Your task to perform on an android device: toggle translation in the chrome app Image 0: 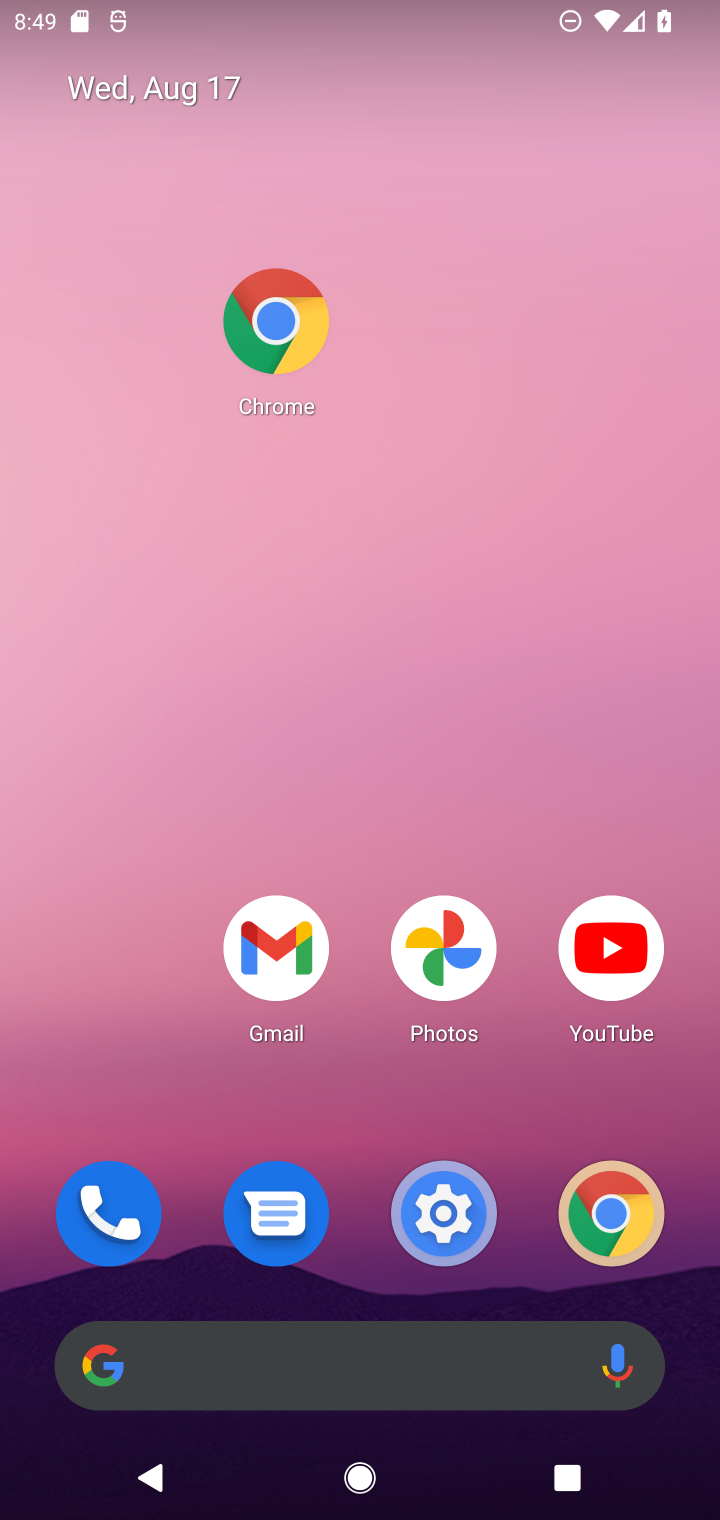
Step 0: click (629, 1203)
Your task to perform on an android device: toggle translation in the chrome app Image 1: 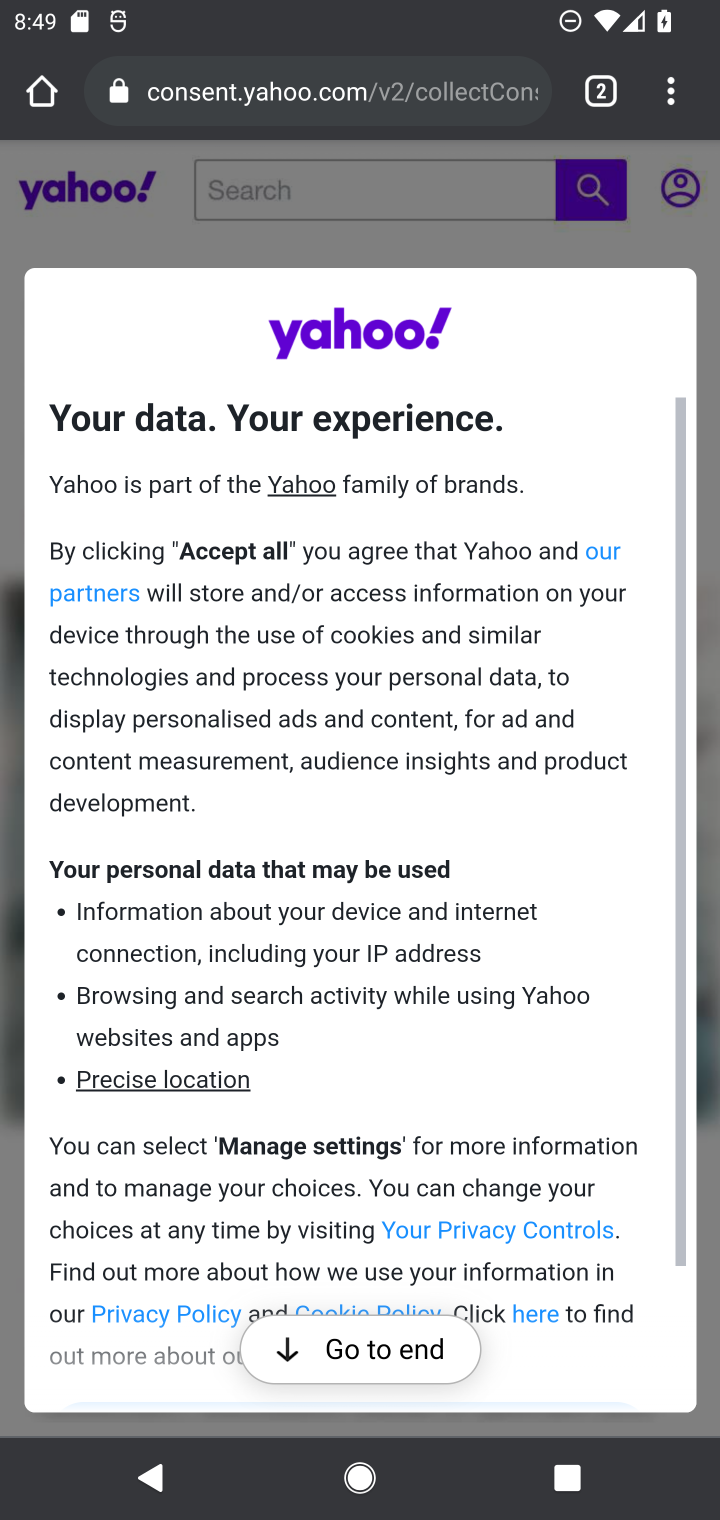
Step 1: click (662, 115)
Your task to perform on an android device: toggle translation in the chrome app Image 2: 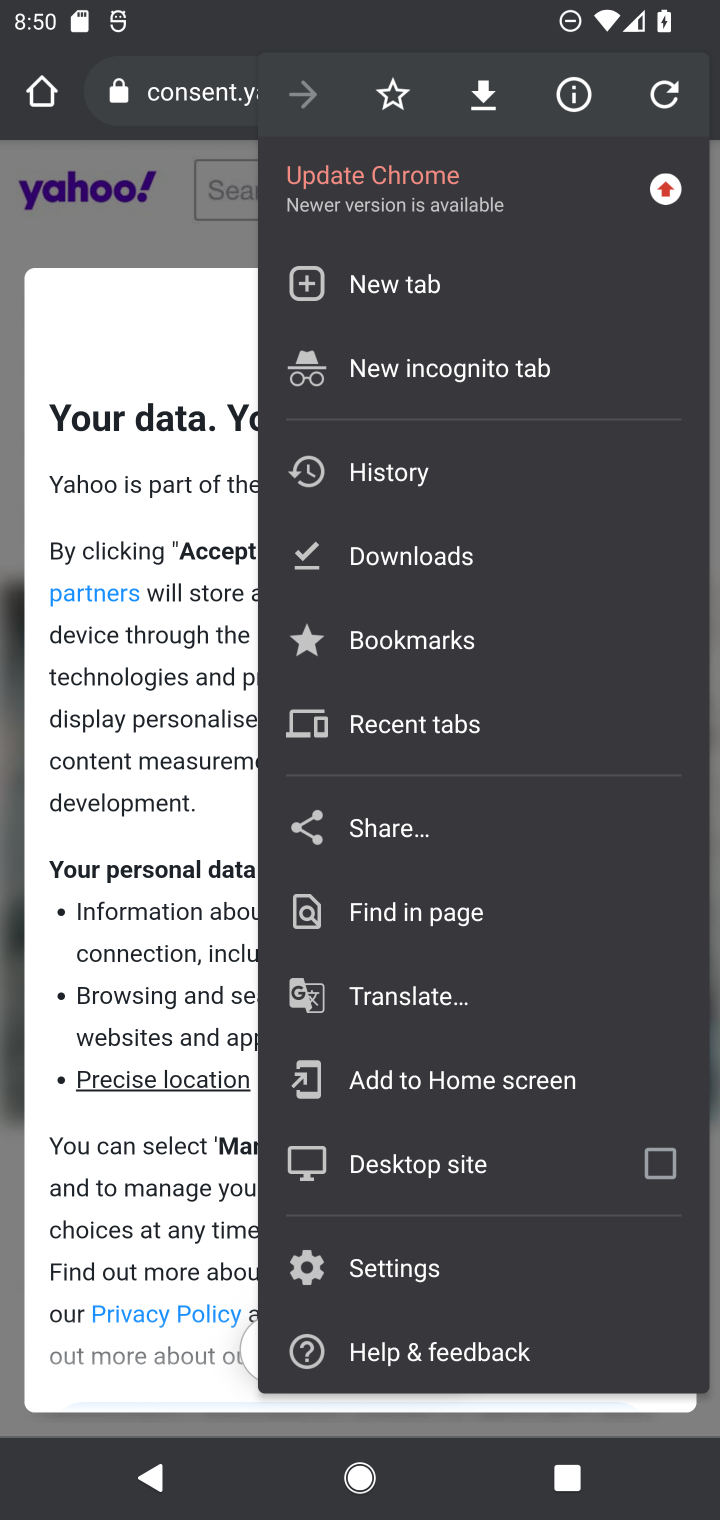
Step 2: click (452, 1245)
Your task to perform on an android device: toggle translation in the chrome app Image 3: 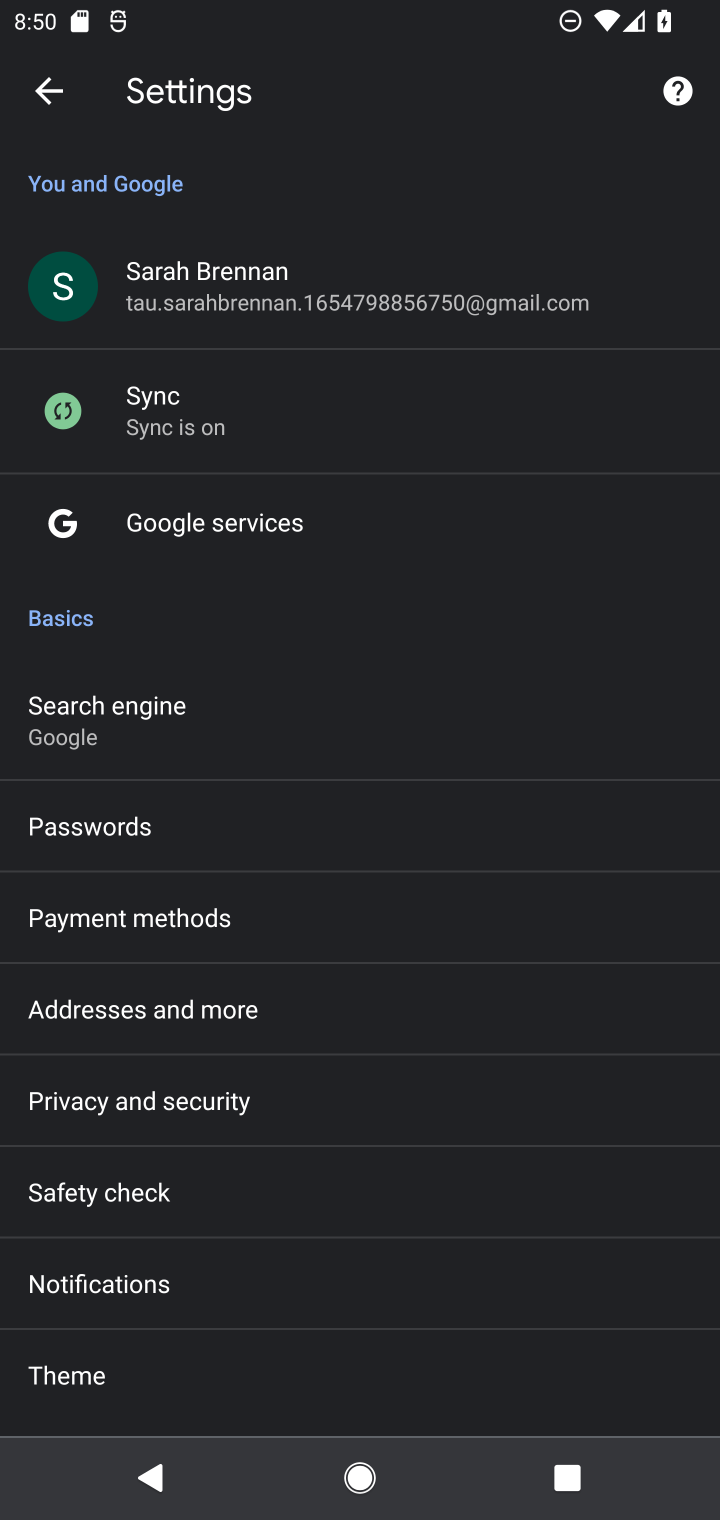
Step 3: drag from (423, 1369) to (302, 538)
Your task to perform on an android device: toggle translation in the chrome app Image 4: 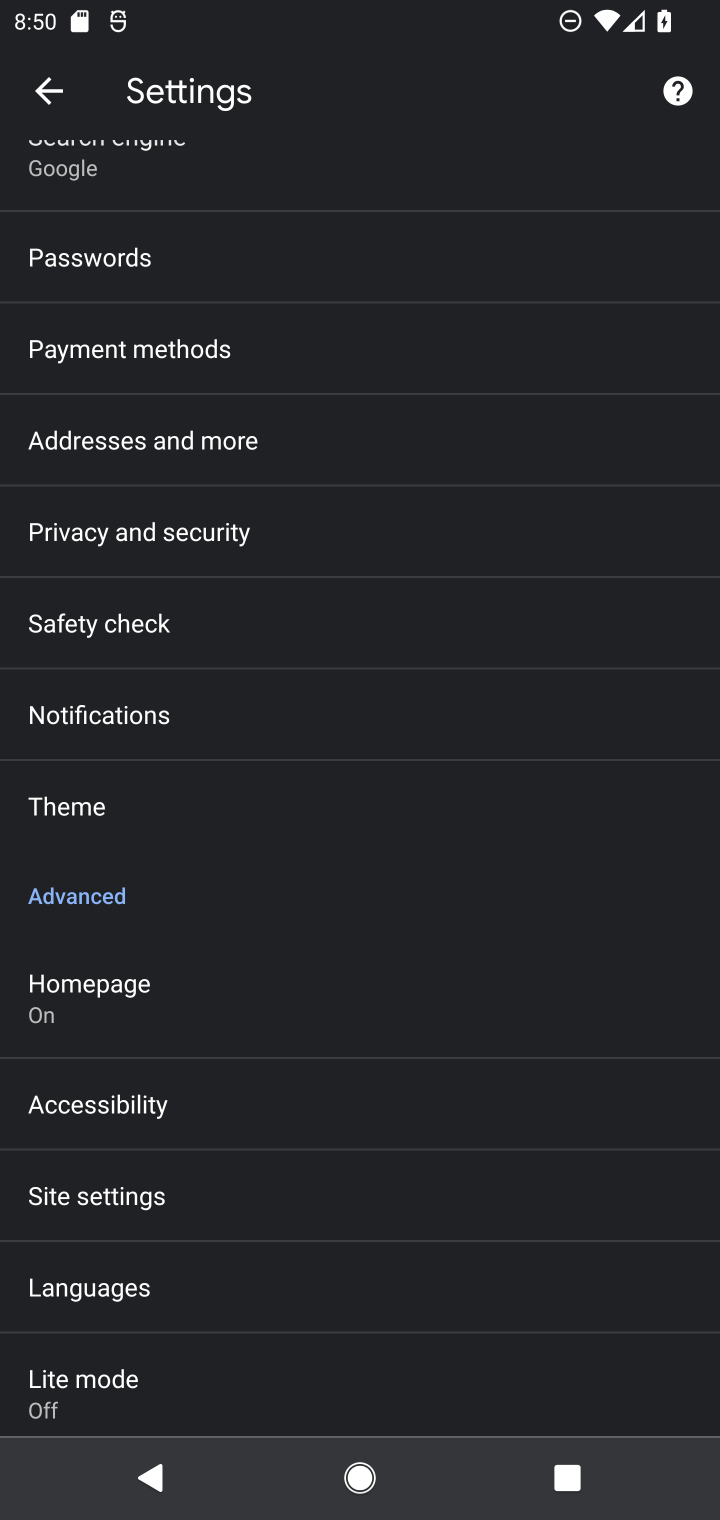
Step 4: click (219, 1315)
Your task to perform on an android device: toggle translation in the chrome app Image 5: 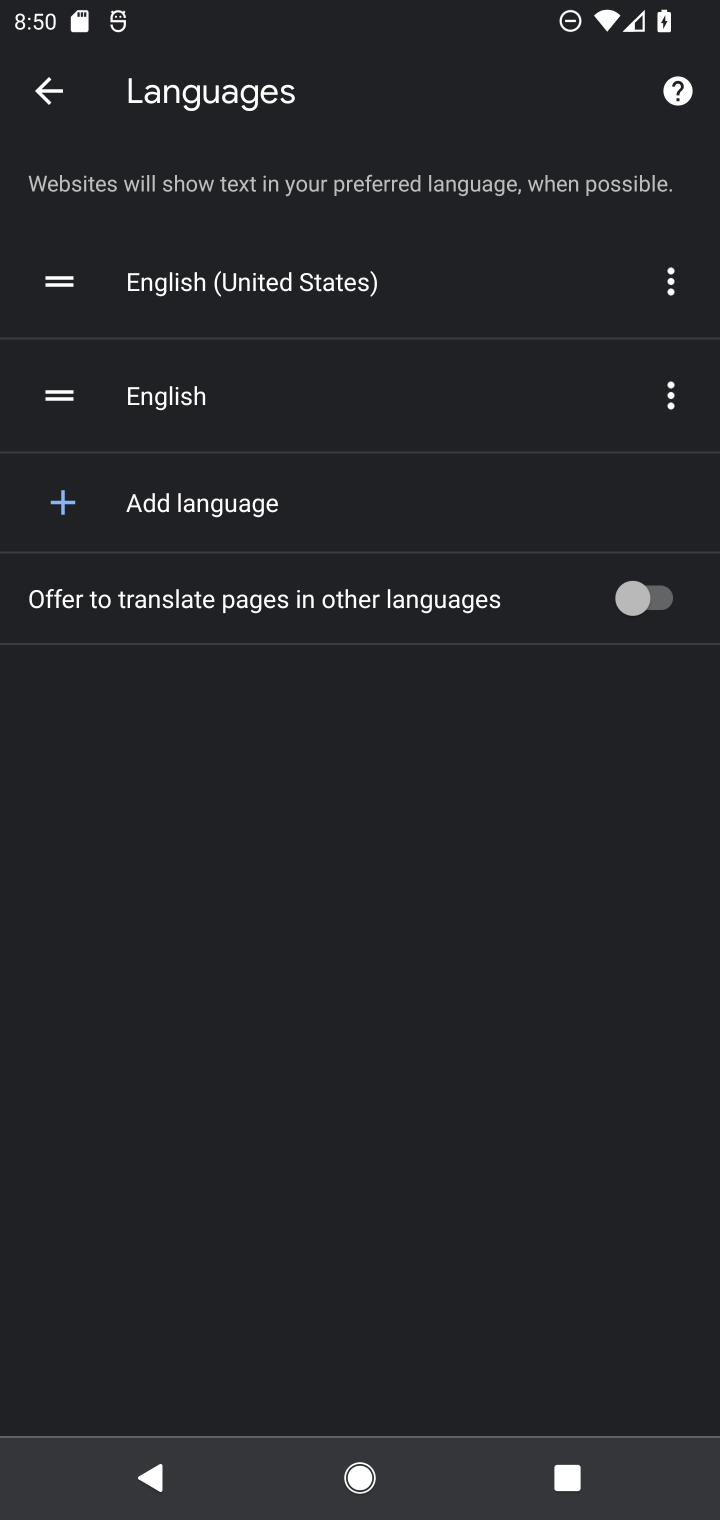
Step 5: click (584, 543)
Your task to perform on an android device: toggle translation in the chrome app Image 6: 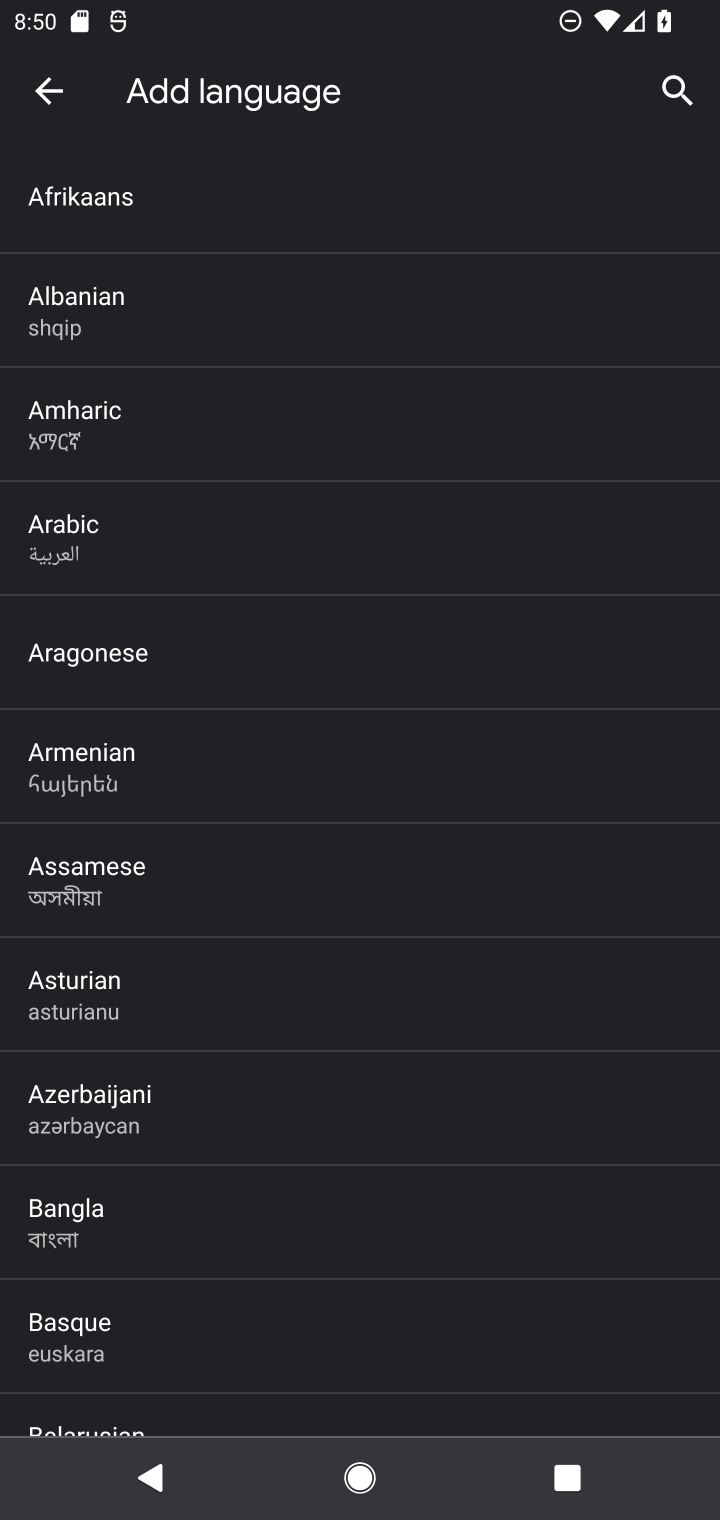
Step 6: click (62, 121)
Your task to perform on an android device: toggle translation in the chrome app Image 7: 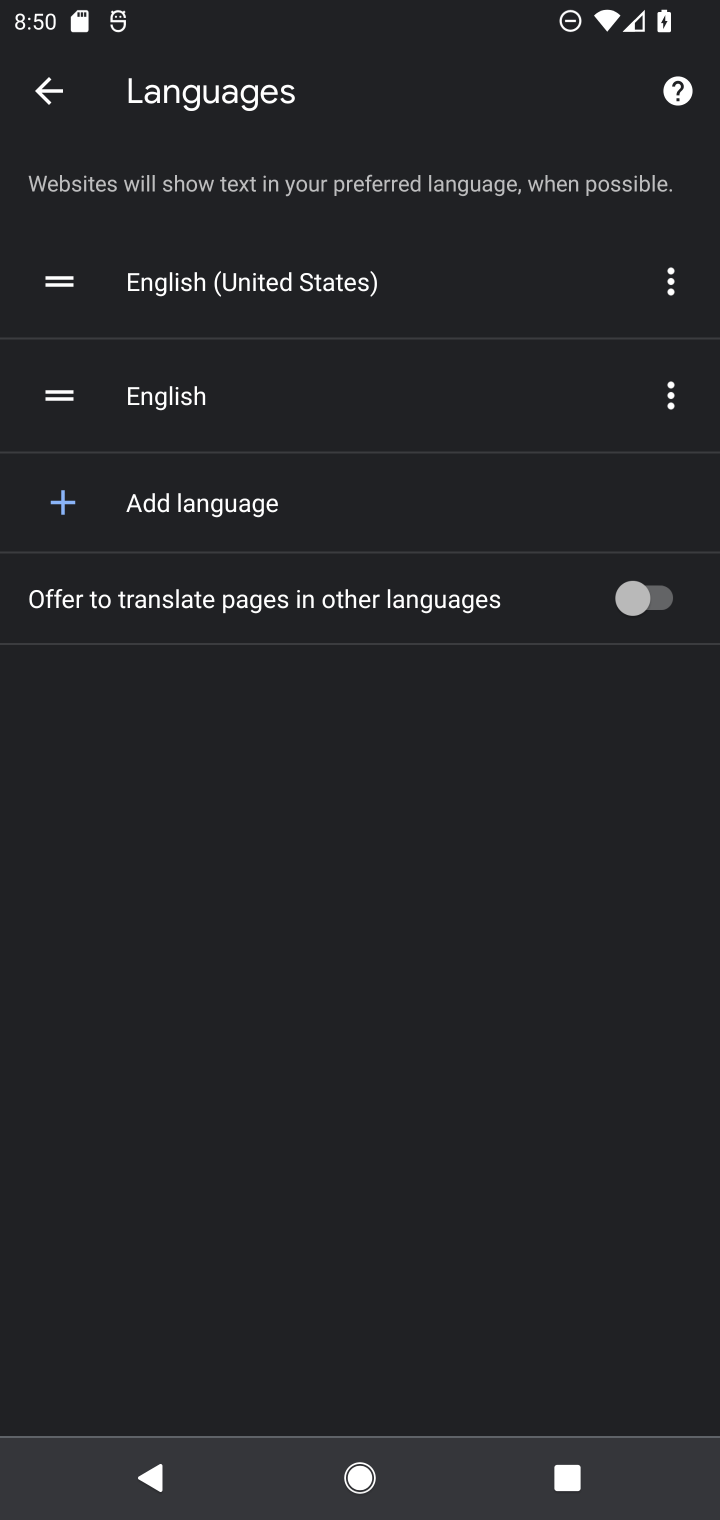
Step 7: click (648, 626)
Your task to perform on an android device: toggle translation in the chrome app Image 8: 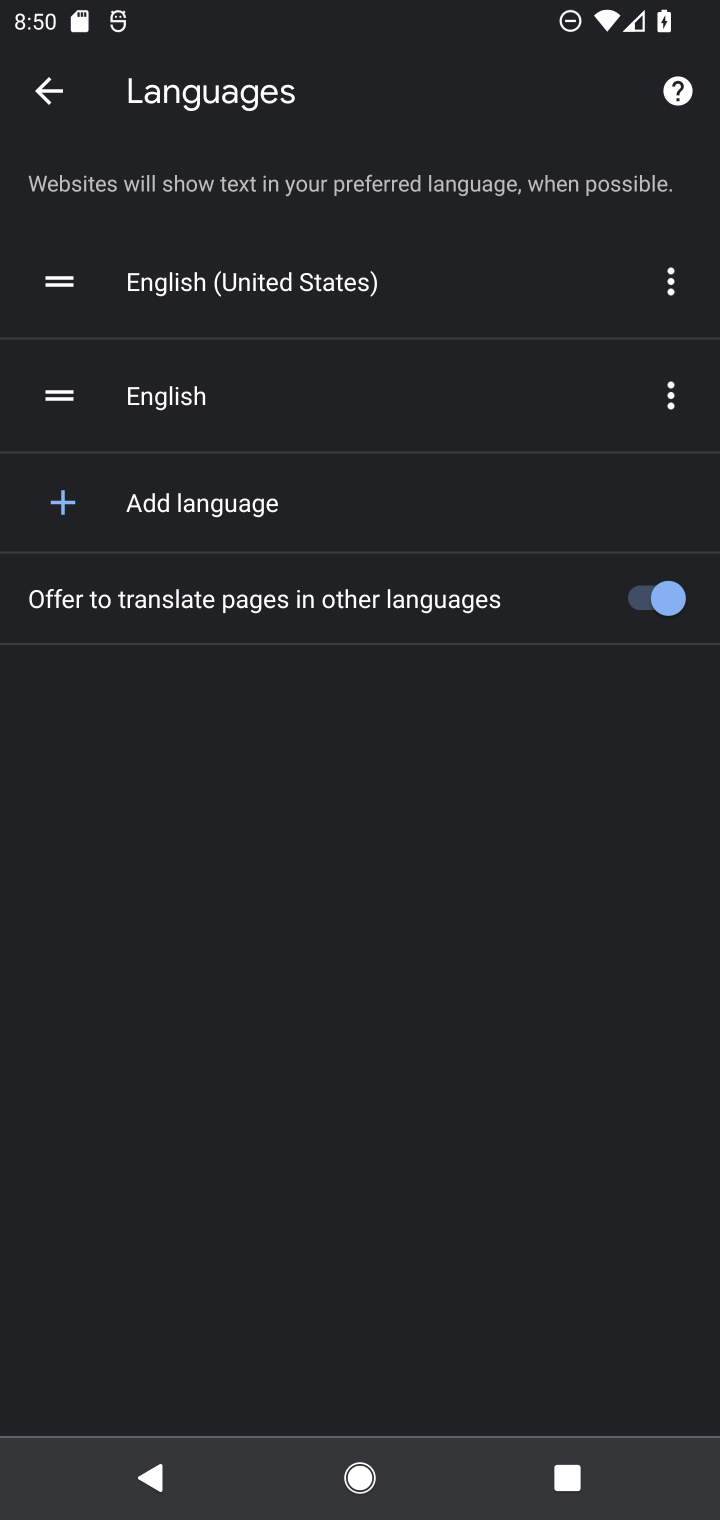
Step 8: task complete